Your task to perform on an android device: check google app version Image 0: 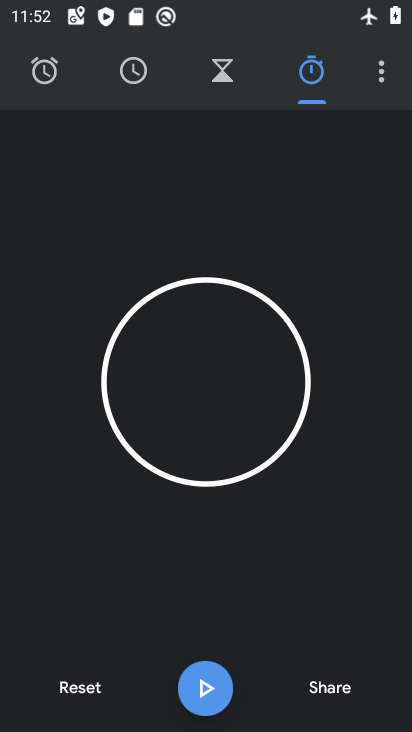
Step 0: press home button
Your task to perform on an android device: check google app version Image 1: 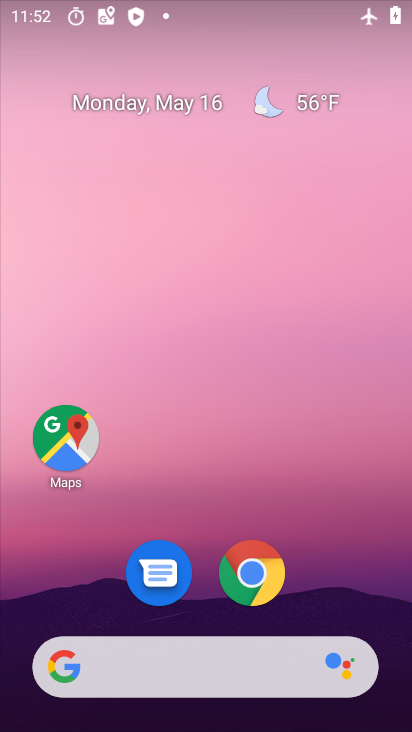
Step 1: drag from (202, 624) to (217, 88)
Your task to perform on an android device: check google app version Image 2: 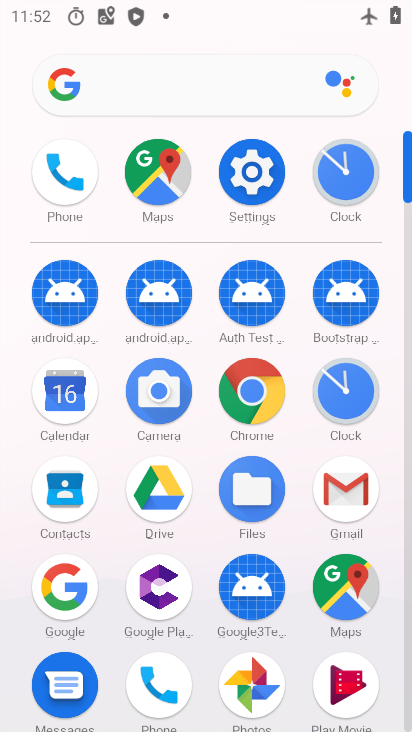
Step 2: click (50, 609)
Your task to perform on an android device: check google app version Image 3: 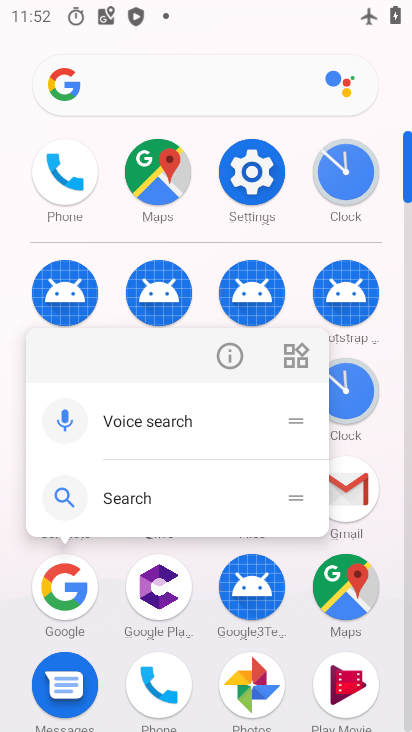
Step 3: click (221, 365)
Your task to perform on an android device: check google app version Image 4: 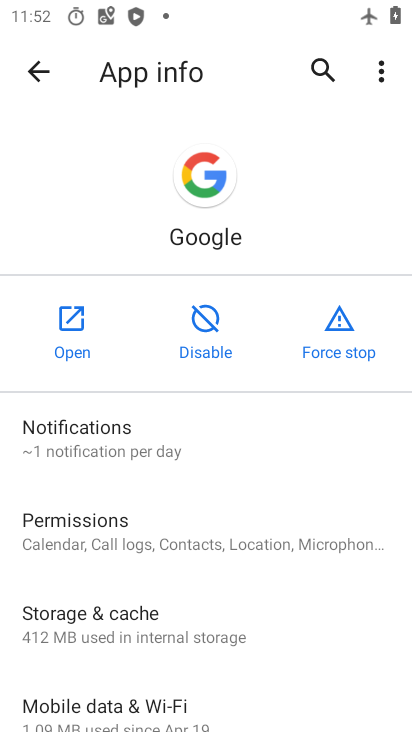
Step 4: drag from (233, 657) to (177, 45)
Your task to perform on an android device: check google app version Image 5: 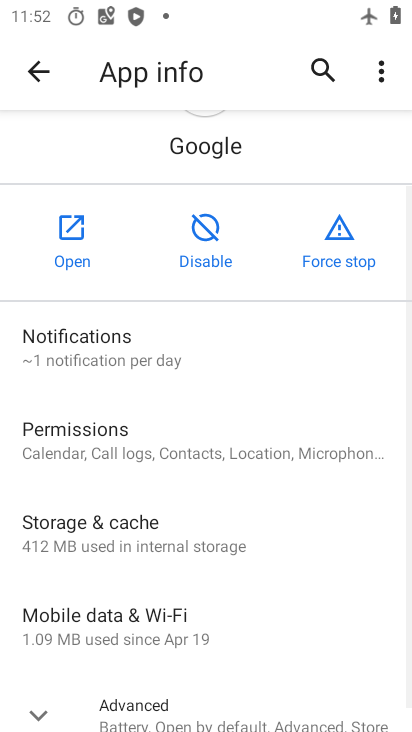
Step 5: drag from (180, 682) to (180, 106)
Your task to perform on an android device: check google app version Image 6: 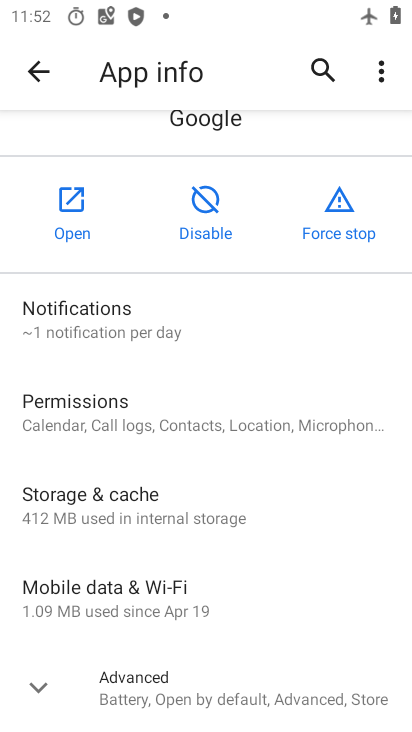
Step 6: click (251, 712)
Your task to perform on an android device: check google app version Image 7: 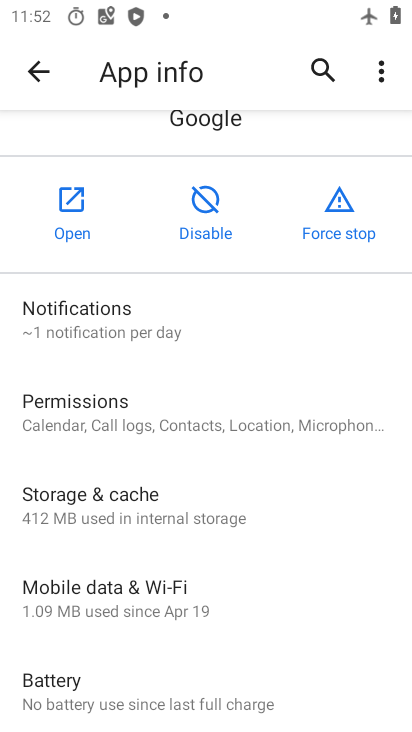
Step 7: task complete